Your task to perform on an android device: Open the calendar and show me this week's events? Image 0: 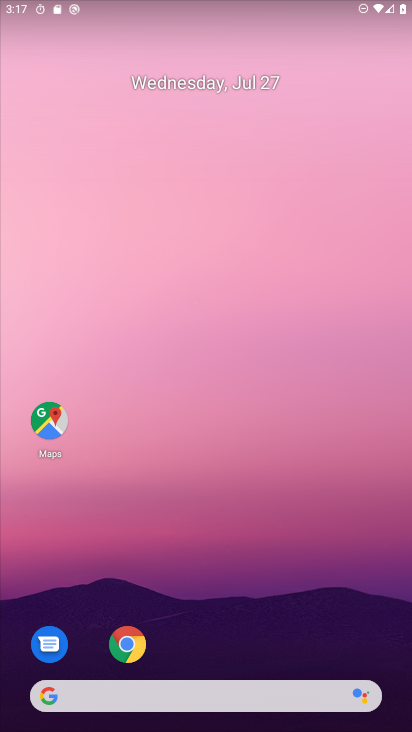
Step 0: drag from (223, 619) to (378, 6)
Your task to perform on an android device: Open the calendar and show me this week's events? Image 1: 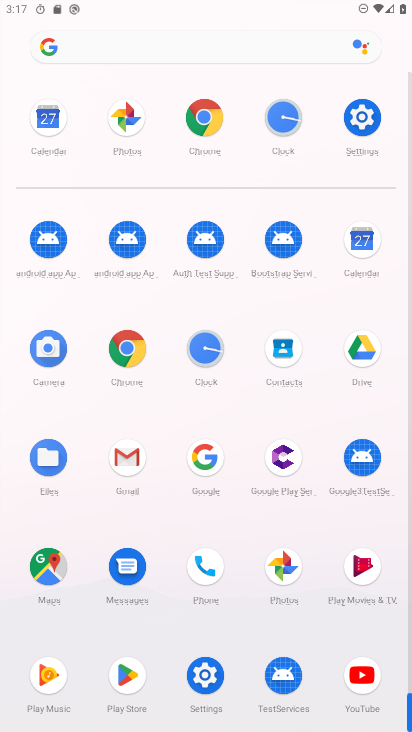
Step 1: click (371, 263)
Your task to perform on an android device: Open the calendar and show me this week's events? Image 2: 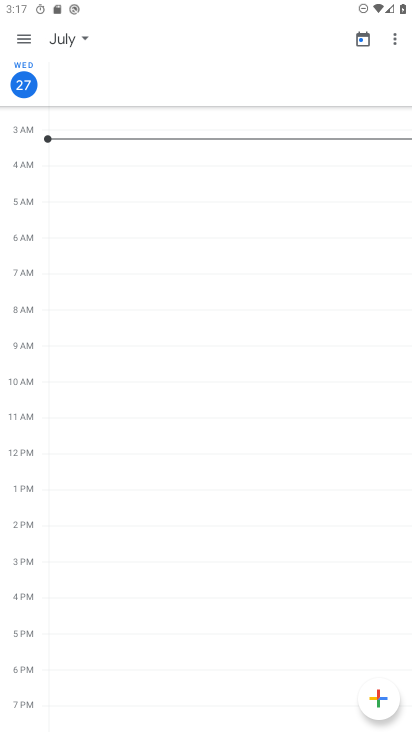
Step 2: click (26, 35)
Your task to perform on an android device: Open the calendar and show me this week's events? Image 3: 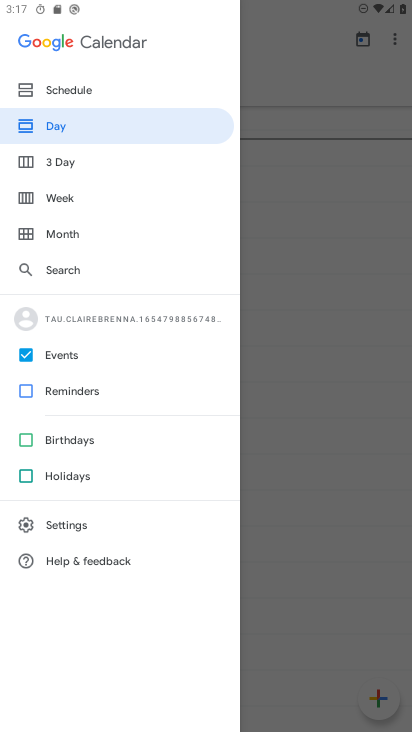
Step 3: click (68, 202)
Your task to perform on an android device: Open the calendar and show me this week's events? Image 4: 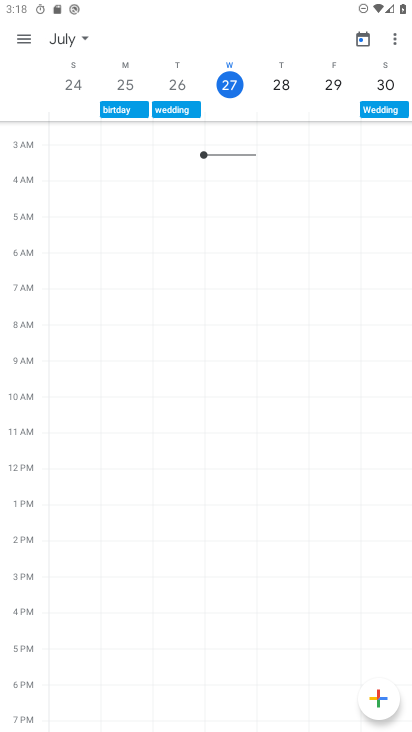
Step 4: task complete